Your task to perform on an android device: change notifications settings Image 0: 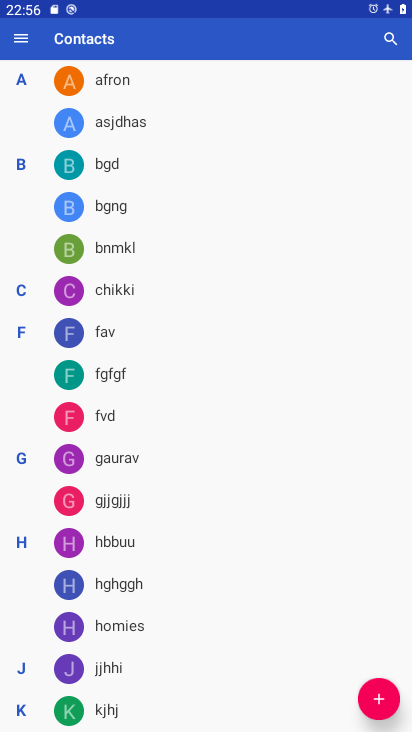
Step 0: press home button
Your task to perform on an android device: change notifications settings Image 1: 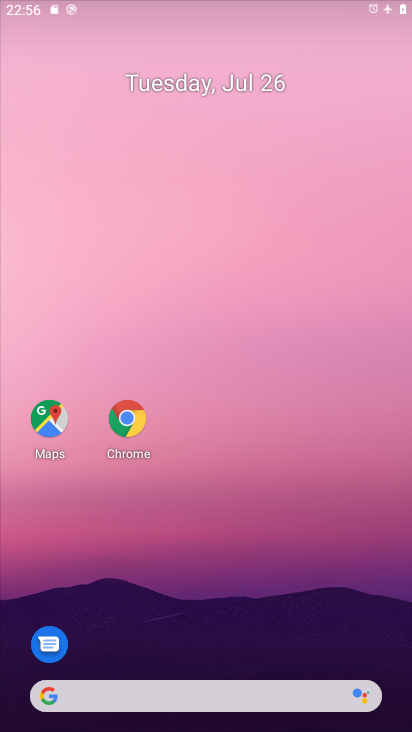
Step 1: drag from (220, 662) to (249, 149)
Your task to perform on an android device: change notifications settings Image 2: 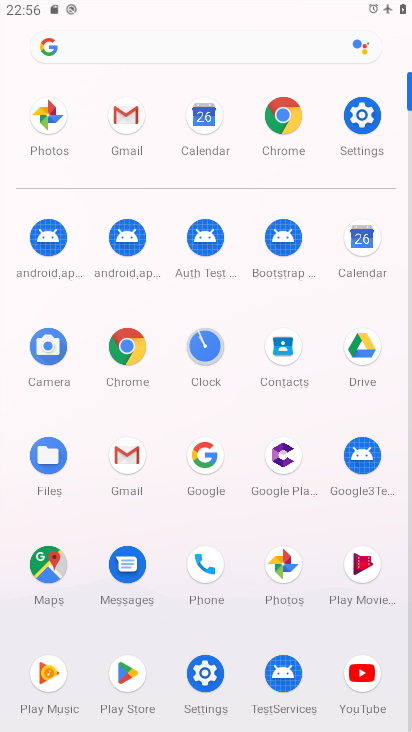
Step 2: click (366, 112)
Your task to perform on an android device: change notifications settings Image 3: 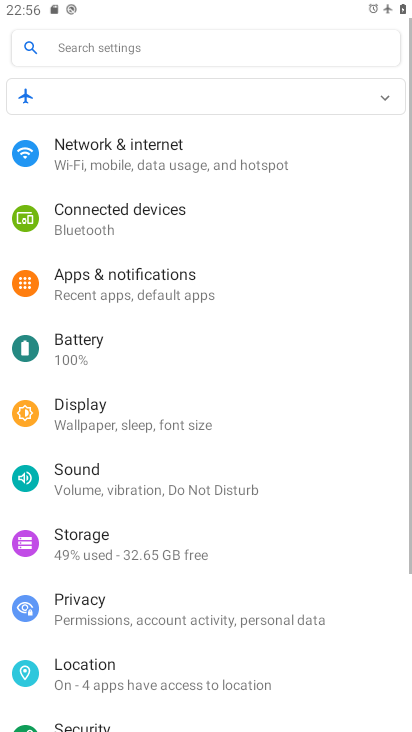
Step 3: click (90, 283)
Your task to perform on an android device: change notifications settings Image 4: 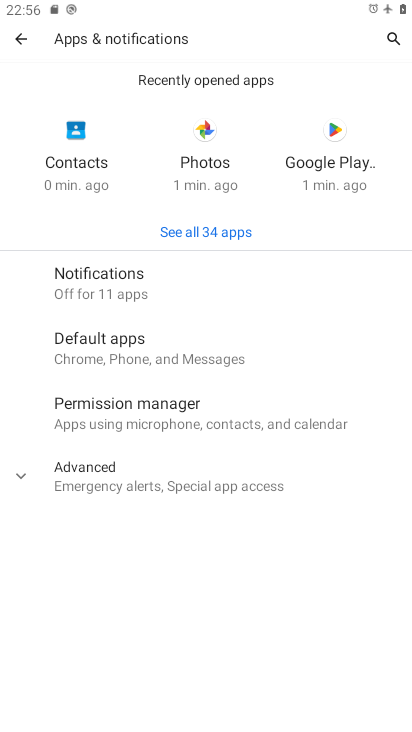
Step 4: click (142, 291)
Your task to perform on an android device: change notifications settings Image 5: 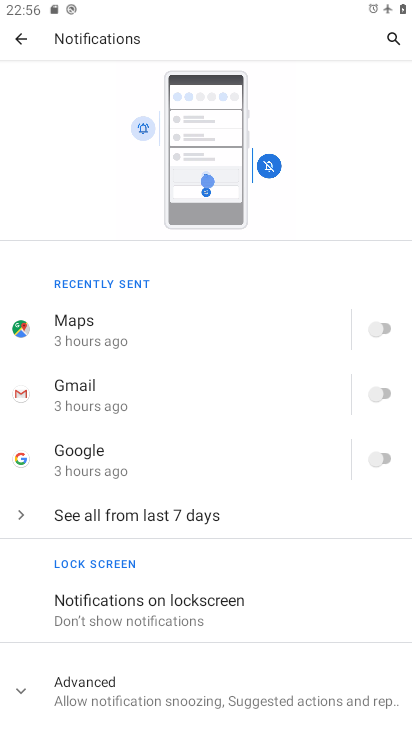
Step 5: click (226, 505)
Your task to perform on an android device: change notifications settings Image 6: 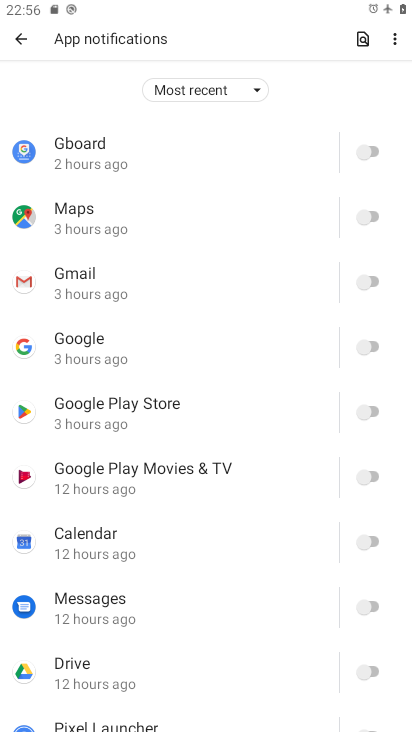
Step 6: click (376, 138)
Your task to perform on an android device: change notifications settings Image 7: 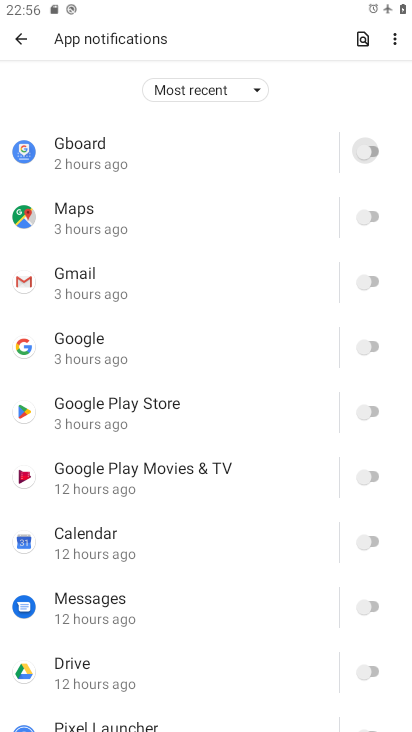
Step 7: click (366, 199)
Your task to perform on an android device: change notifications settings Image 8: 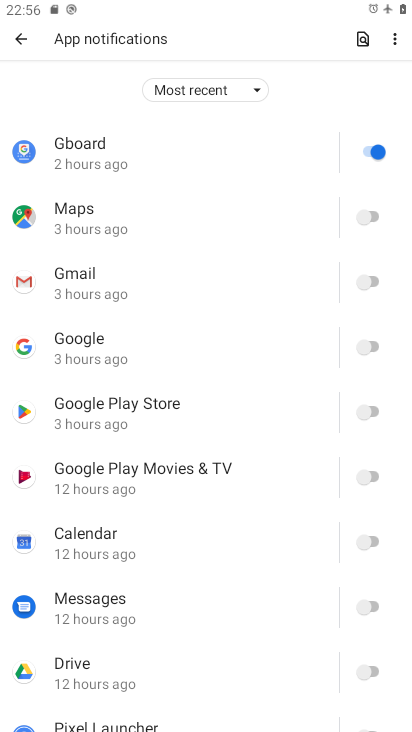
Step 8: click (368, 210)
Your task to perform on an android device: change notifications settings Image 9: 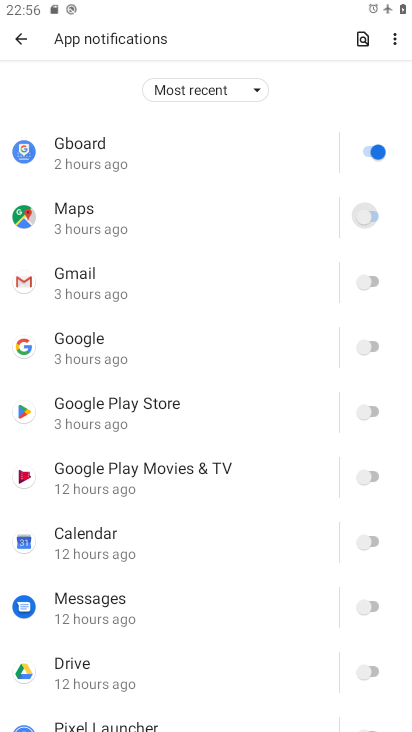
Step 9: click (361, 255)
Your task to perform on an android device: change notifications settings Image 10: 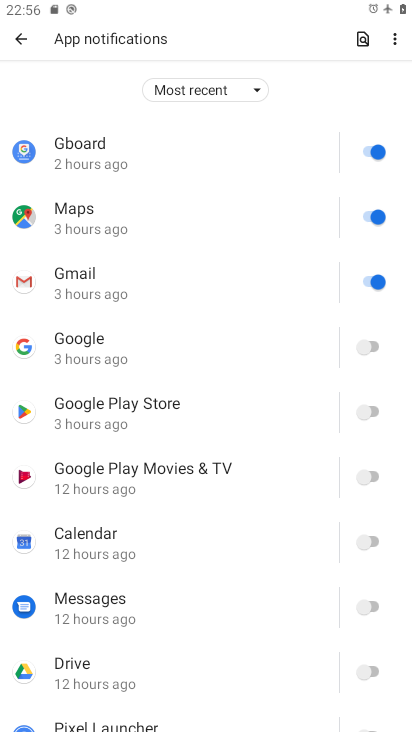
Step 10: click (355, 338)
Your task to perform on an android device: change notifications settings Image 11: 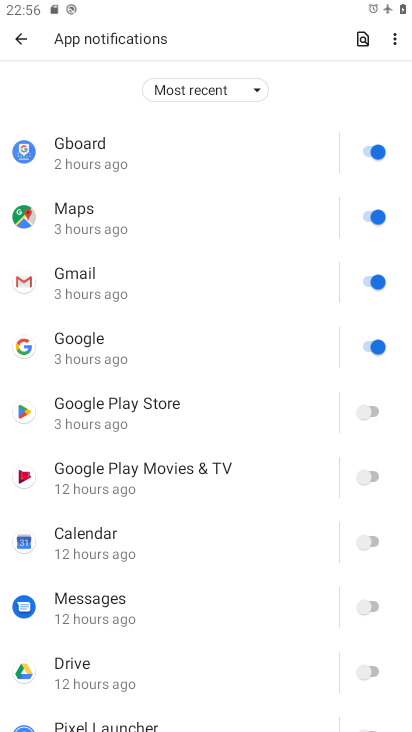
Step 11: click (359, 411)
Your task to perform on an android device: change notifications settings Image 12: 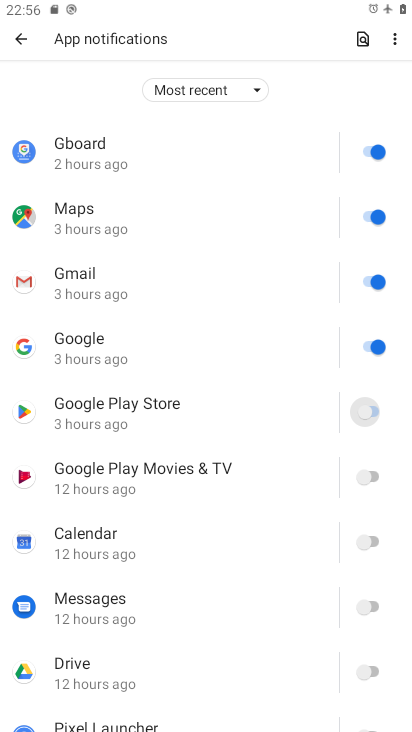
Step 12: click (363, 447)
Your task to perform on an android device: change notifications settings Image 13: 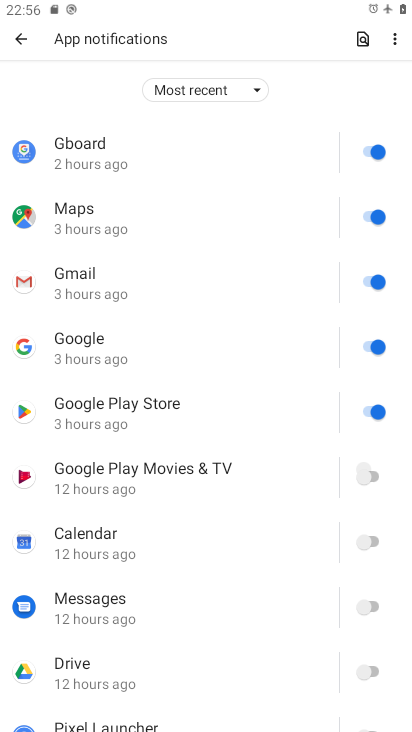
Step 13: click (363, 463)
Your task to perform on an android device: change notifications settings Image 14: 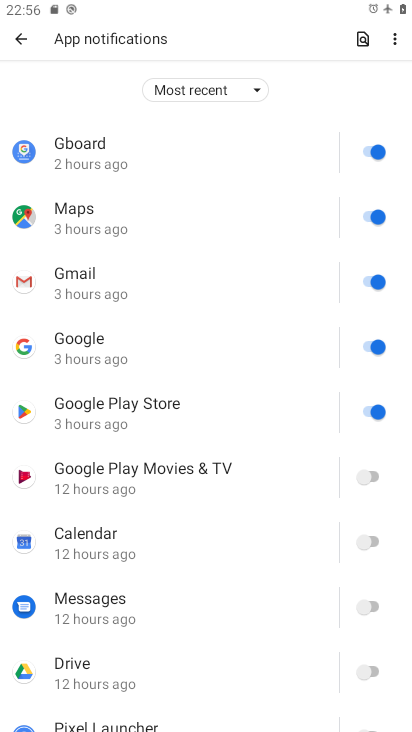
Step 14: click (356, 555)
Your task to perform on an android device: change notifications settings Image 15: 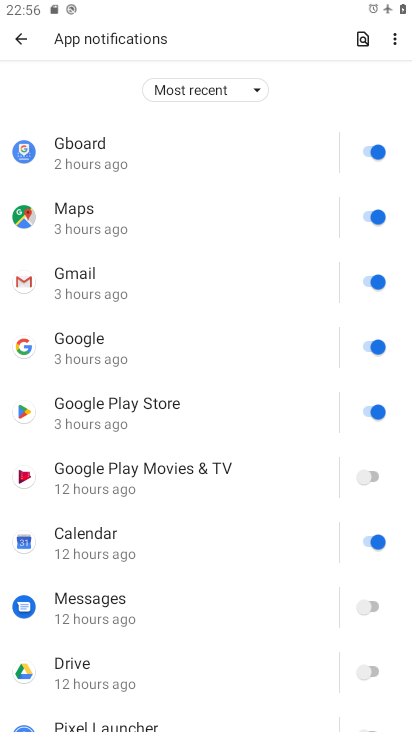
Step 15: click (374, 612)
Your task to perform on an android device: change notifications settings Image 16: 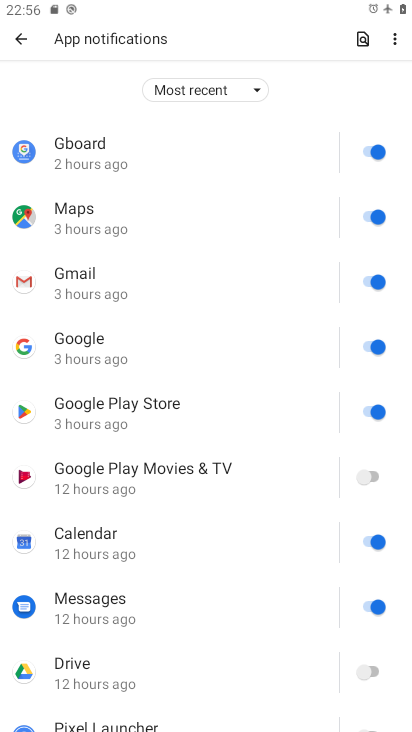
Step 16: click (372, 665)
Your task to perform on an android device: change notifications settings Image 17: 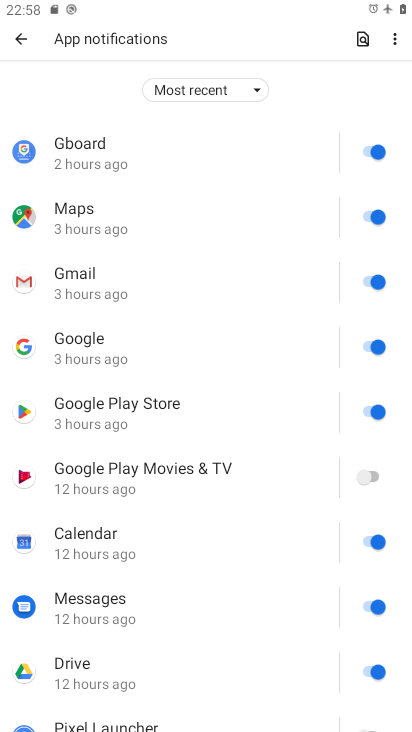
Step 17: task complete